Your task to perform on an android device: Go to ESPN.com Image 0: 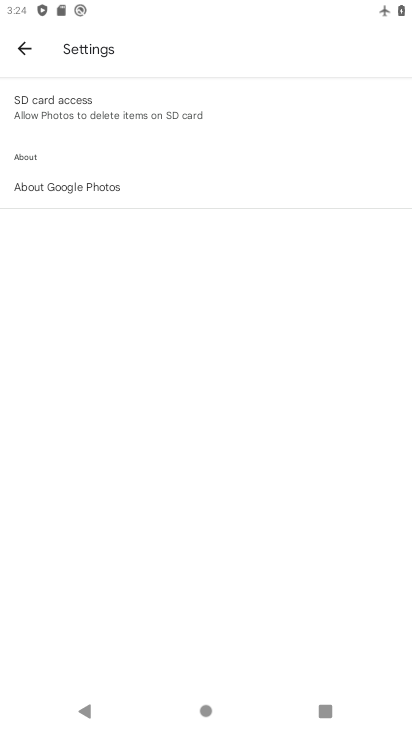
Step 0: press home button
Your task to perform on an android device: Go to ESPN.com Image 1: 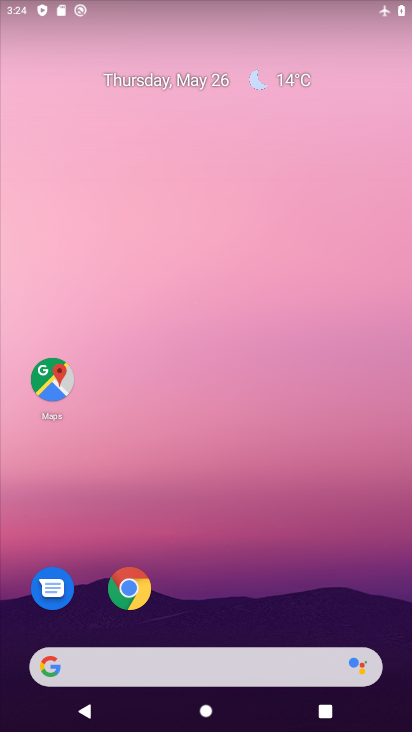
Step 1: type "espn.com"
Your task to perform on an android device: Go to ESPN.com Image 2: 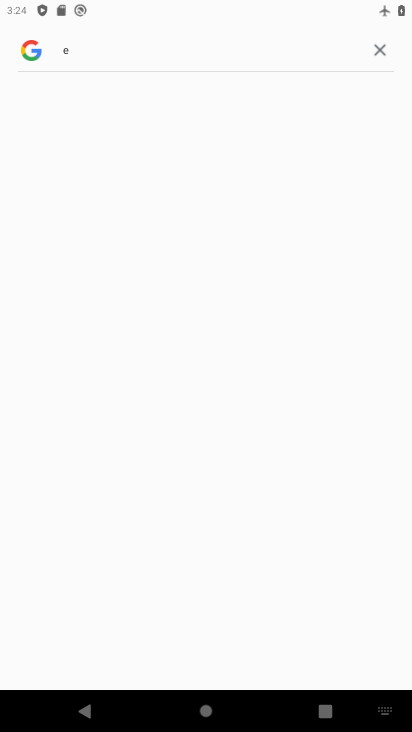
Step 2: task complete